Your task to perform on an android device: turn on javascript in the chrome app Image 0: 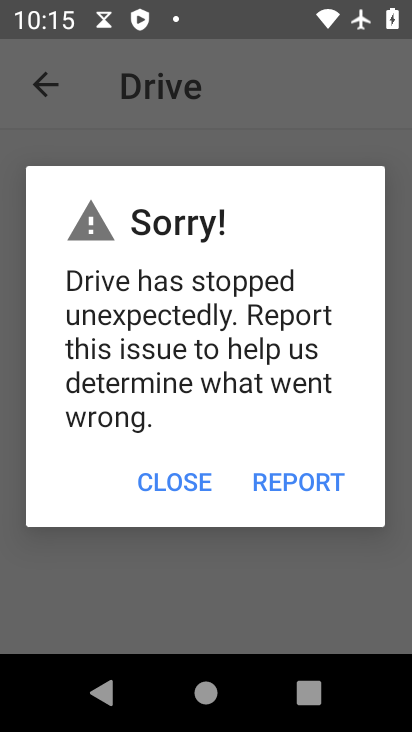
Step 0: press home button
Your task to perform on an android device: turn on javascript in the chrome app Image 1: 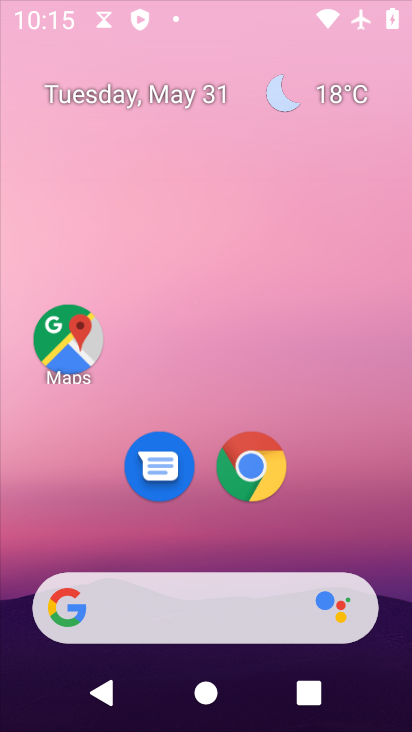
Step 1: press back button
Your task to perform on an android device: turn on javascript in the chrome app Image 2: 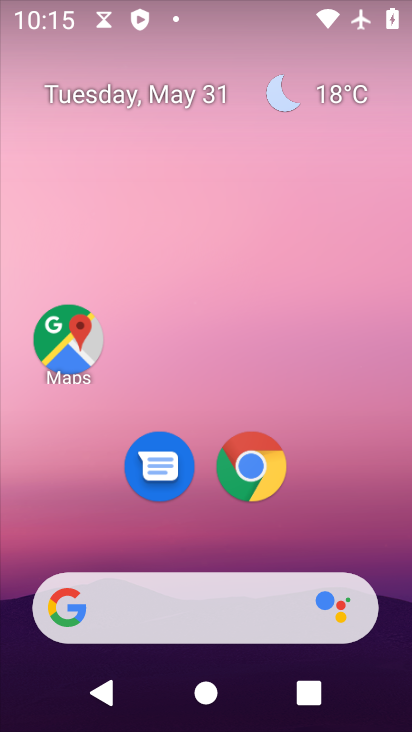
Step 2: drag from (392, 533) to (257, 32)
Your task to perform on an android device: turn on javascript in the chrome app Image 3: 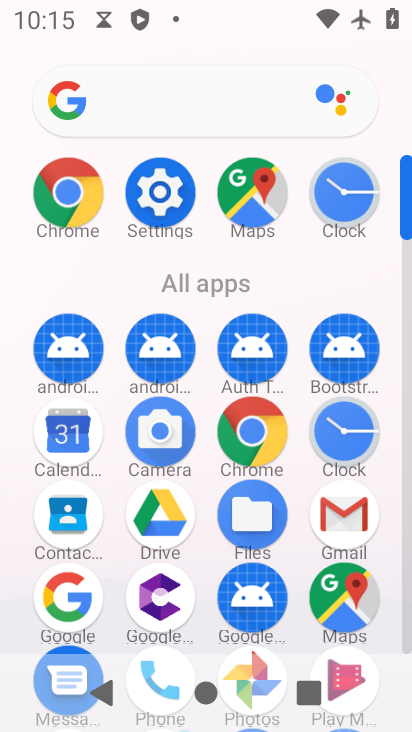
Step 3: drag from (13, 596) to (7, 248)
Your task to perform on an android device: turn on javascript in the chrome app Image 4: 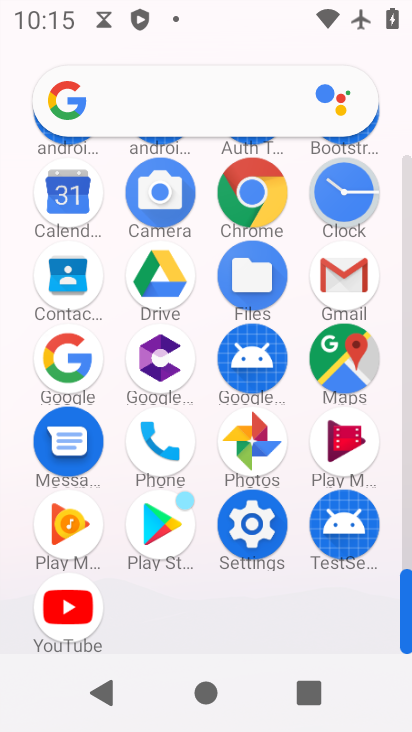
Step 4: click (251, 189)
Your task to perform on an android device: turn on javascript in the chrome app Image 5: 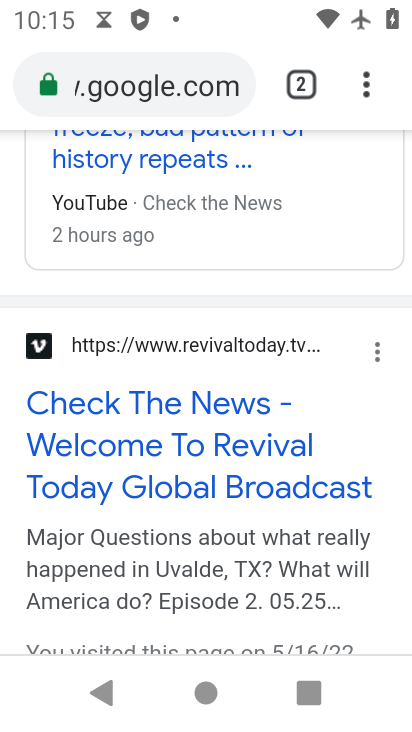
Step 5: drag from (364, 76) to (247, 503)
Your task to perform on an android device: turn on javascript in the chrome app Image 6: 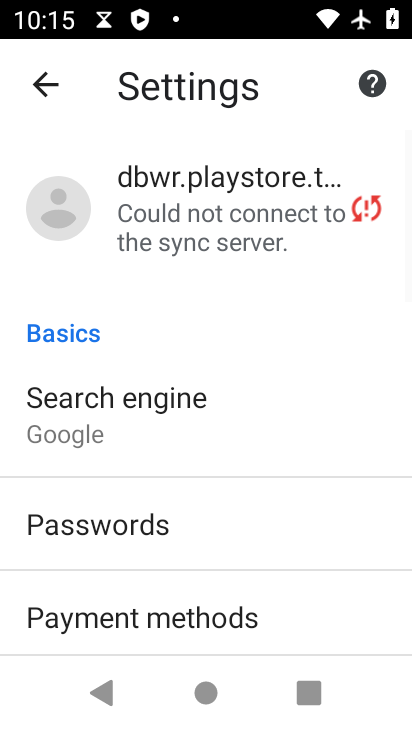
Step 6: drag from (275, 575) to (275, 174)
Your task to perform on an android device: turn on javascript in the chrome app Image 7: 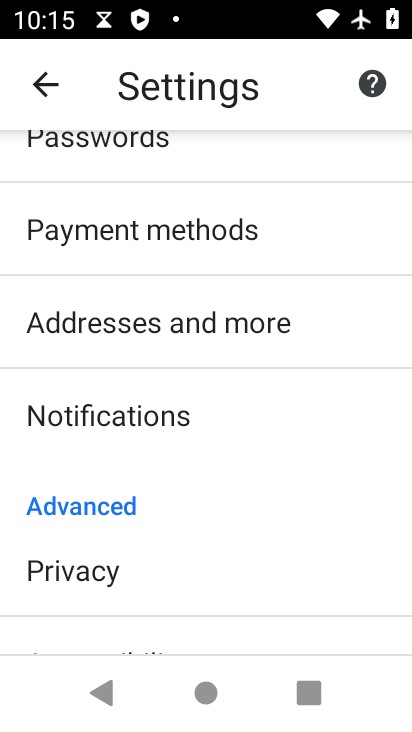
Step 7: drag from (273, 480) to (279, 213)
Your task to perform on an android device: turn on javascript in the chrome app Image 8: 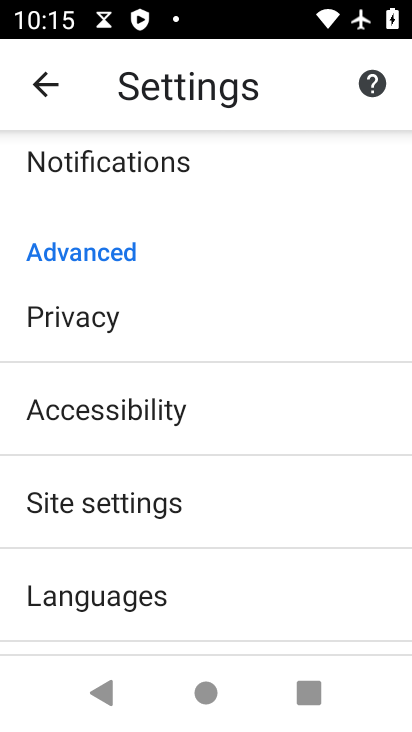
Step 8: click (167, 501)
Your task to perform on an android device: turn on javascript in the chrome app Image 9: 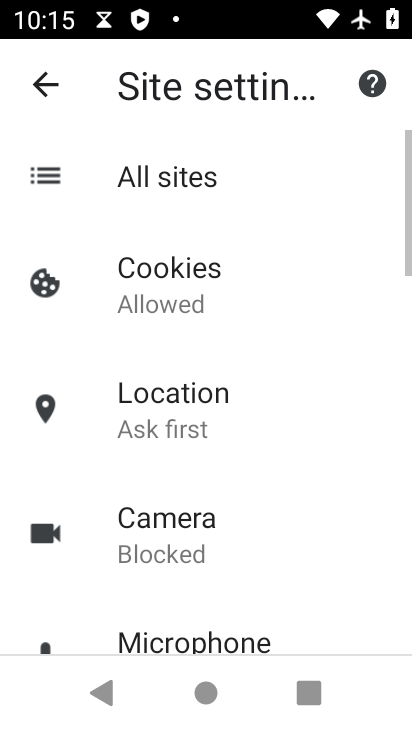
Step 9: task complete